Your task to perform on an android device: open wifi settings Image 0: 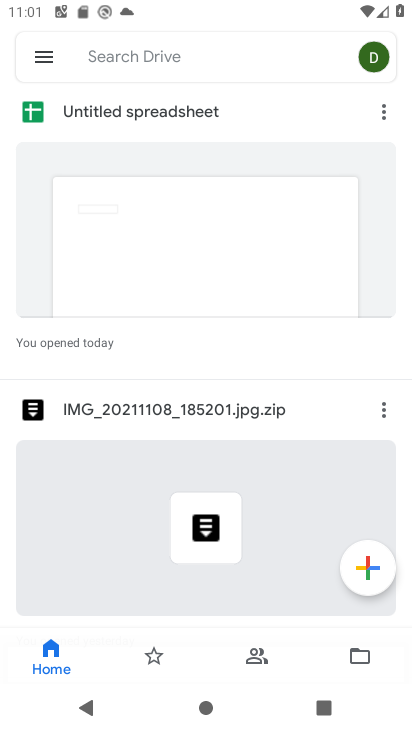
Step 0: press back button
Your task to perform on an android device: open wifi settings Image 1: 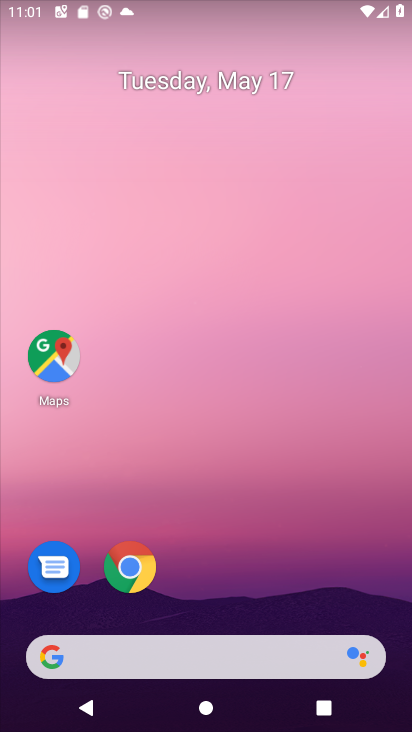
Step 1: drag from (57, 5) to (198, 517)
Your task to perform on an android device: open wifi settings Image 2: 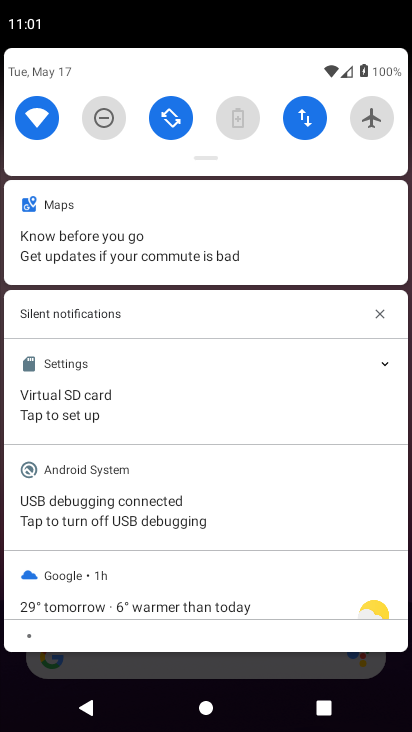
Step 2: click (36, 124)
Your task to perform on an android device: open wifi settings Image 3: 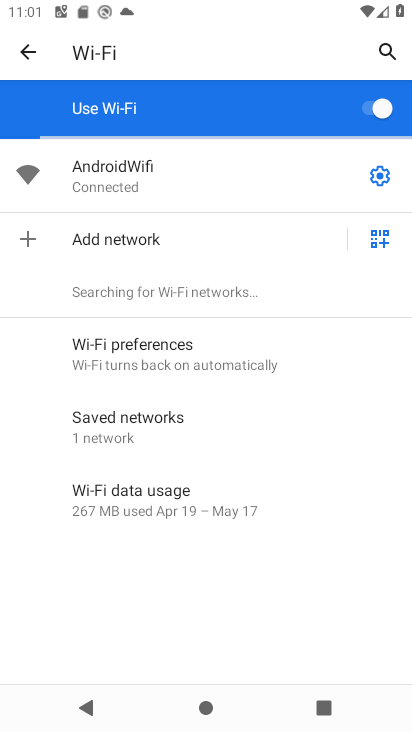
Step 3: task complete